Your task to perform on an android device: find which apps use the phone's location Image 0: 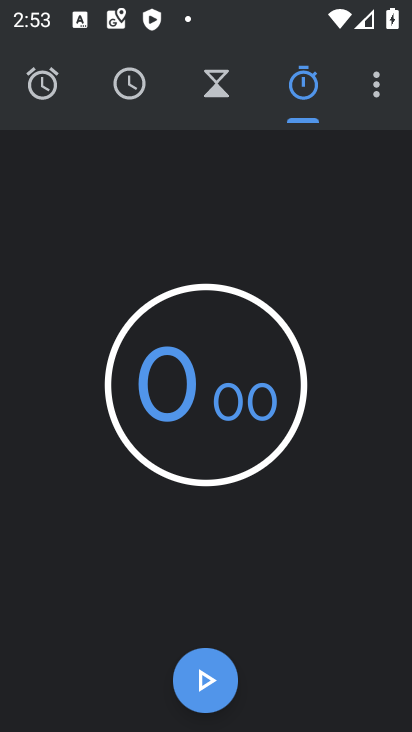
Step 0: press home button
Your task to perform on an android device: find which apps use the phone's location Image 1: 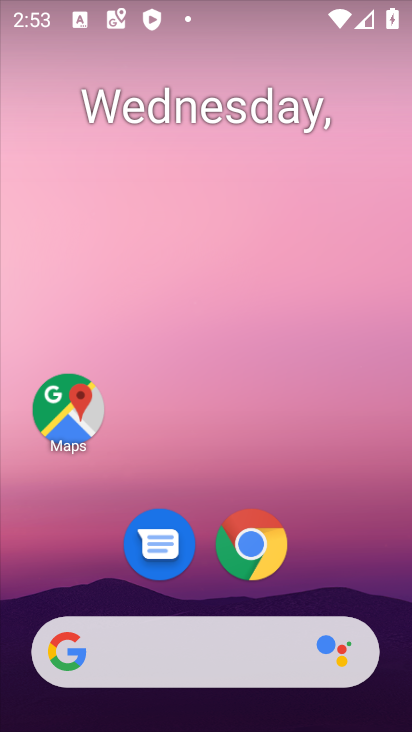
Step 1: drag from (402, 644) to (302, 94)
Your task to perform on an android device: find which apps use the phone's location Image 2: 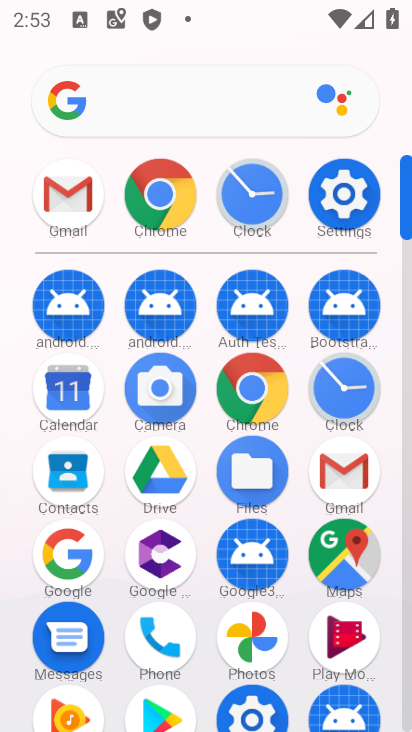
Step 2: click (407, 703)
Your task to perform on an android device: find which apps use the phone's location Image 3: 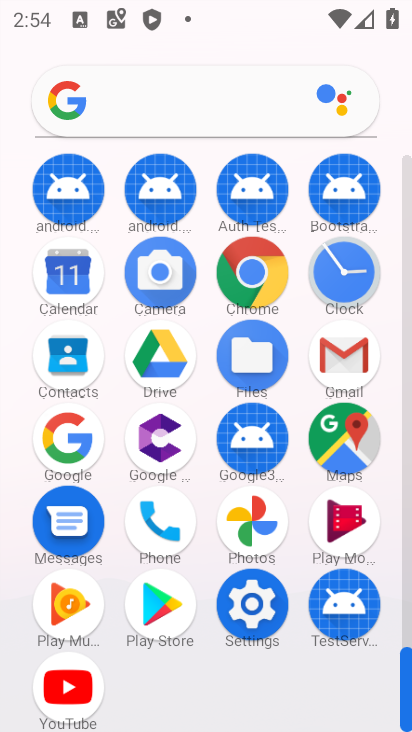
Step 3: click (252, 606)
Your task to perform on an android device: find which apps use the phone's location Image 4: 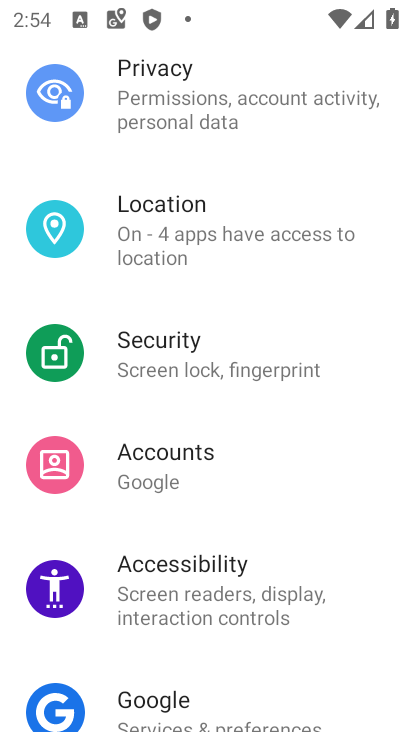
Step 4: drag from (337, 521) to (331, 588)
Your task to perform on an android device: find which apps use the phone's location Image 5: 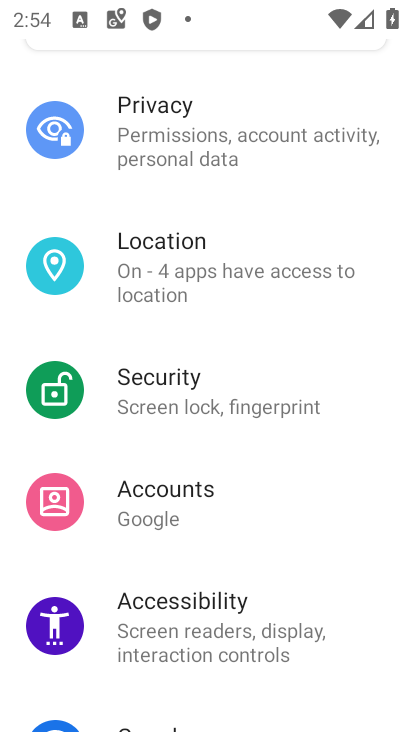
Step 5: drag from (362, 243) to (354, 547)
Your task to perform on an android device: find which apps use the phone's location Image 6: 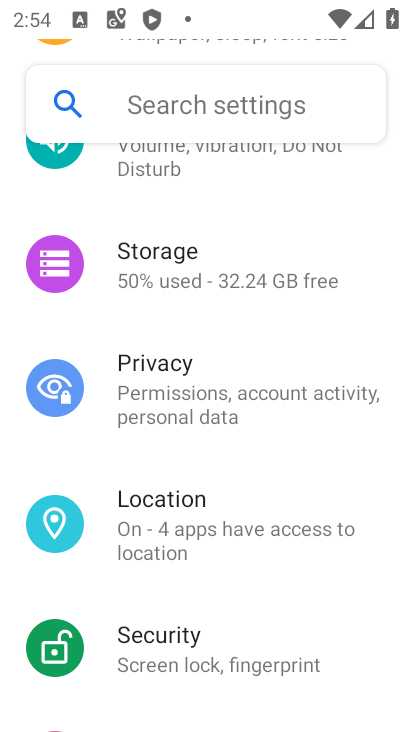
Step 6: click (151, 509)
Your task to perform on an android device: find which apps use the phone's location Image 7: 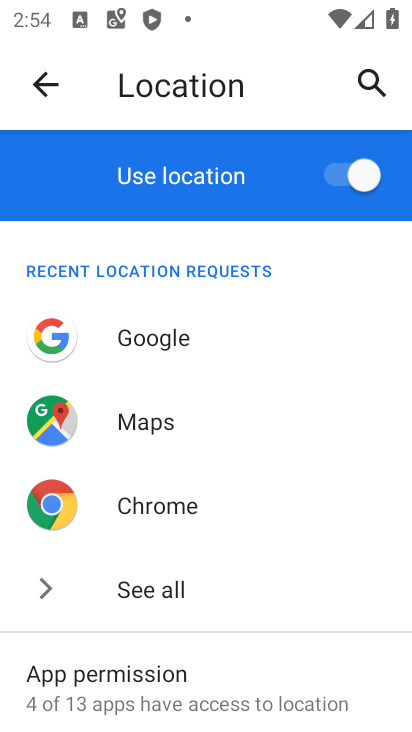
Step 7: drag from (322, 656) to (302, 257)
Your task to perform on an android device: find which apps use the phone's location Image 8: 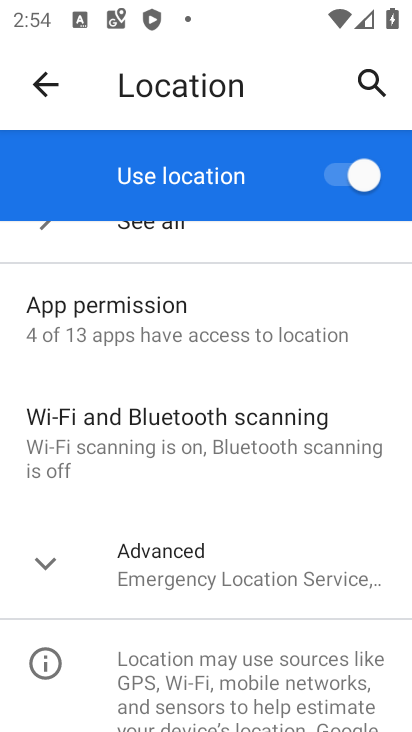
Step 8: click (46, 564)
Your task to perform on an android device: find which apps use the phone's location Image 9: 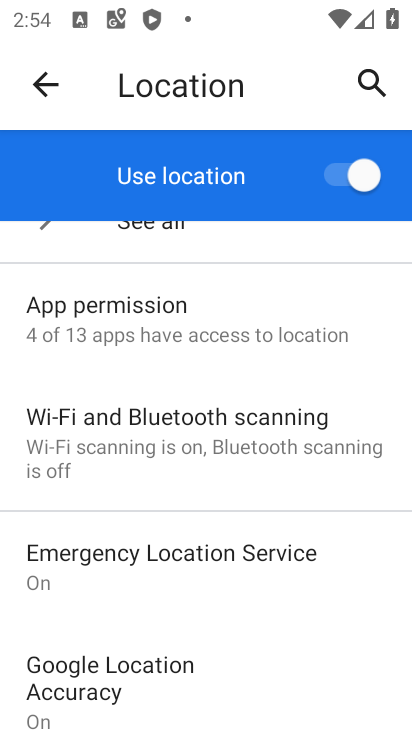
Step 9: drag from (303, 647) to (336, 393)
Your task to perform on an android device: find which apps use the phone's location Image 10: 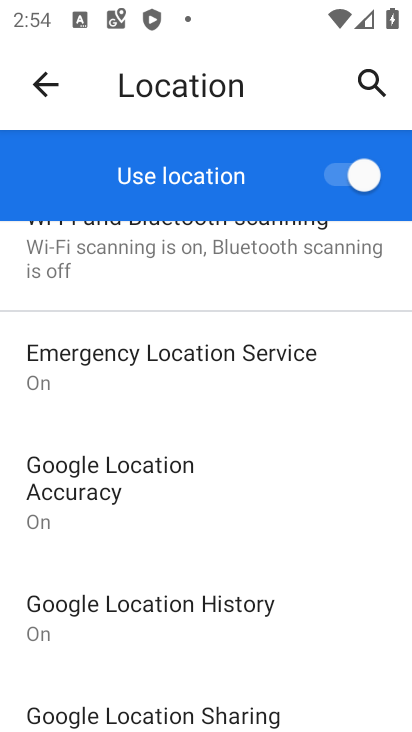
Step 10: drag from (287, 628) to (335, 469)
Your task to perform on an android device: find which apps use the phone's location Image 11: 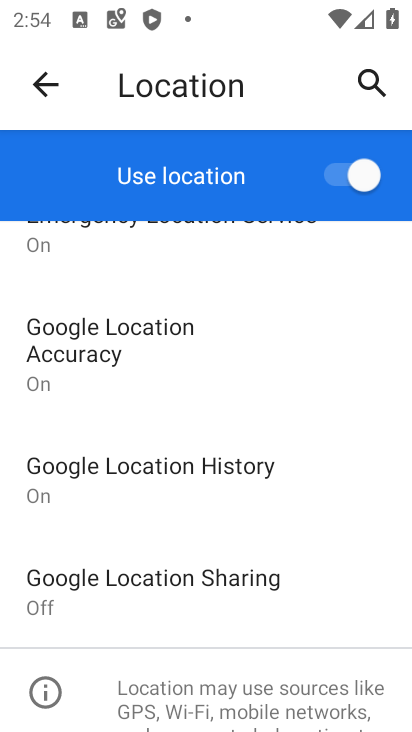
Step 11: drag from (327, 385) to (293, 721)
Your task to perform on an android device: find which apps use the phone's location Image 12: 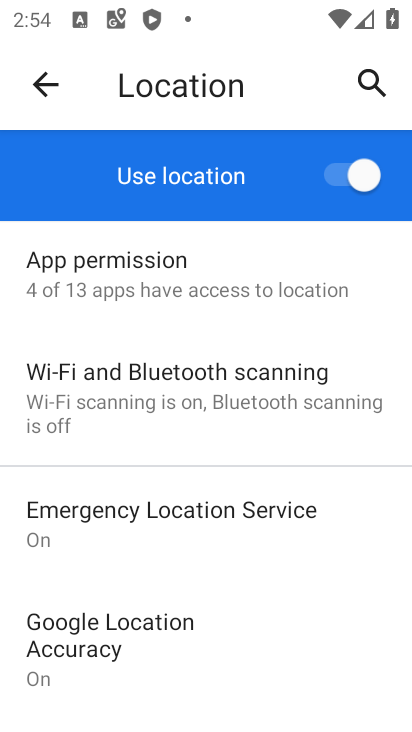
Step 12: drag from (136, 308) to (236, 552)
Your task to perform on an android device: find which apps use the phone's location Image 13: 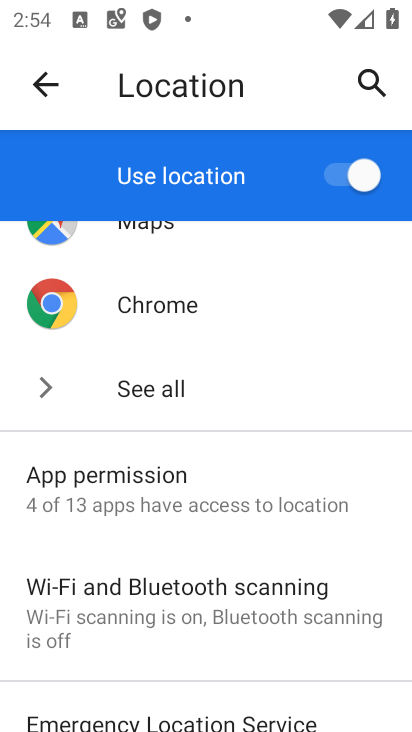
Step 13: click (59, 477)
Your task to perform on an android device: find which apps use the phone's location Image 14: 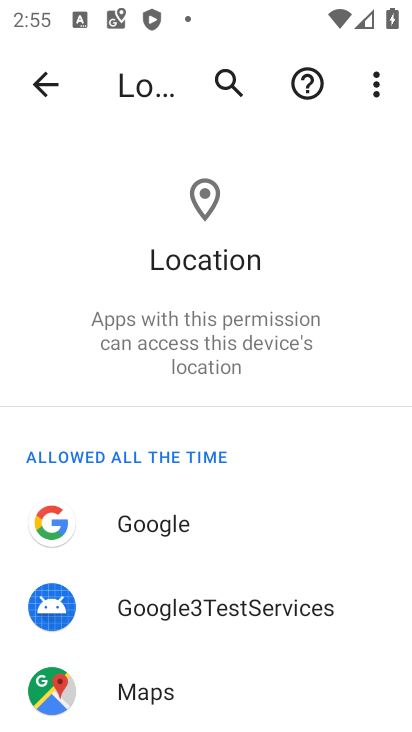
Step 14: drag from (282, 611) to (311, 246)
Your task to perform on an android device: find which apps use the phone's location Image 15: 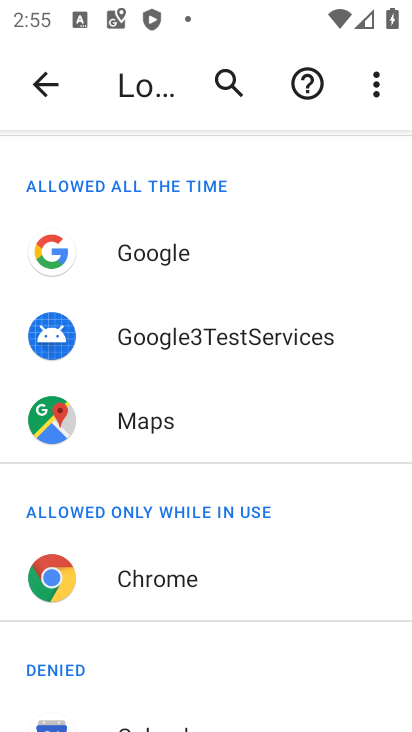
Step 15: drag from (304, 615) to (340, 269)
Your task to perform on an android device: find which apps use the phone's location Image 16: 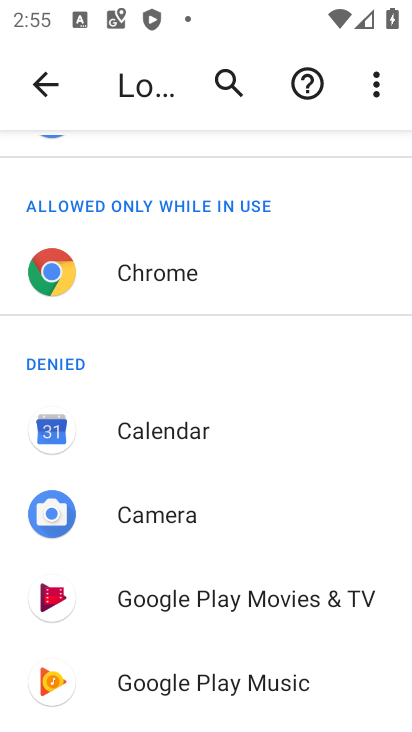
Step 16: click (316, 561)
Your task to perform on an android device: find which apps use the phone's location Image 17: 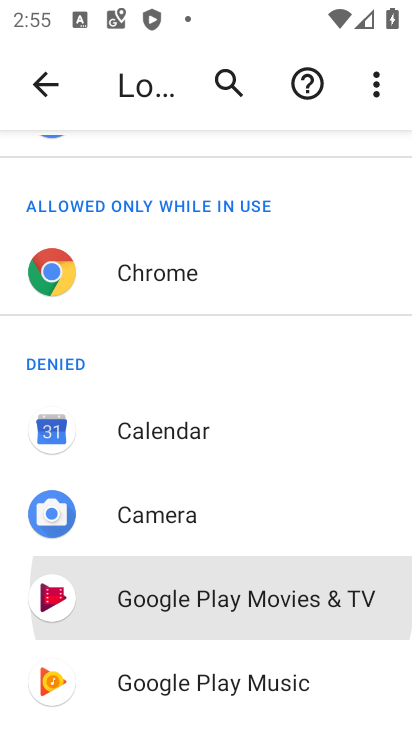
Step 17: task complete